Your task to perform on an android device: check out phone information Image 0: 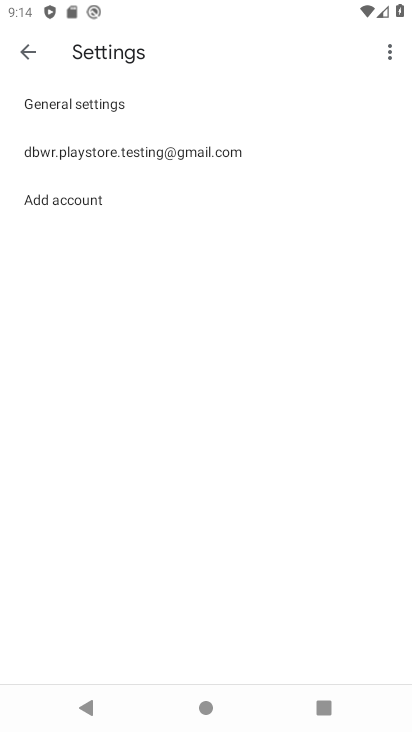
Step 0: press home button
Your task to perform on an android device: check out phone information Image 1: 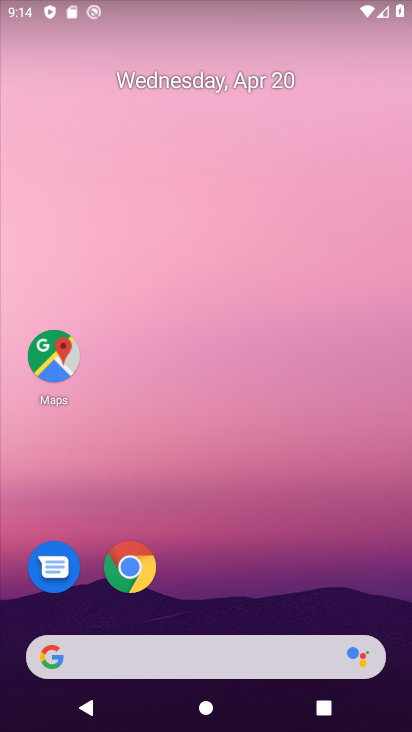
Step 1: drag from (280, 615) to (290, 229)
Your task to perform on an android device: check out phone information Image 2: 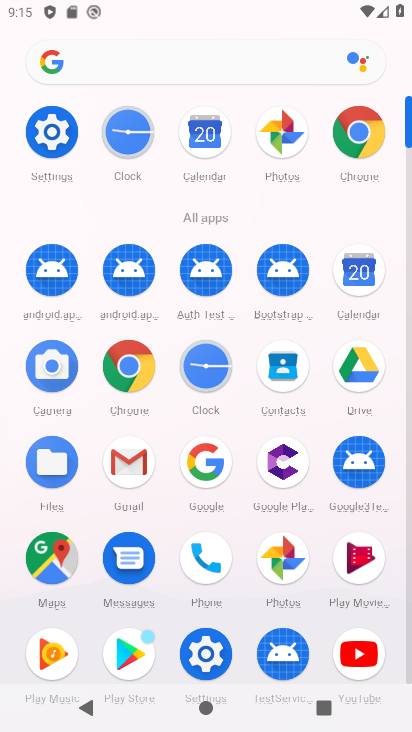
Step 2: click (208, 650)
Your task to perform on an android device: check out phone information Image 3: 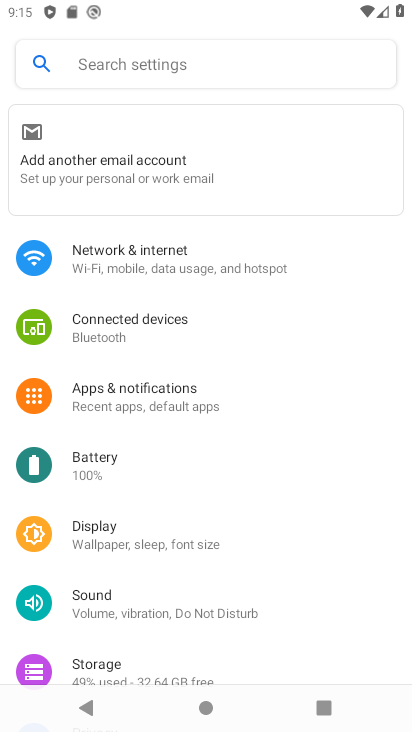
Step 3: drag from (231, 592) to (307, 57)
Your task to perform on an android device: check out phone information Image 4: 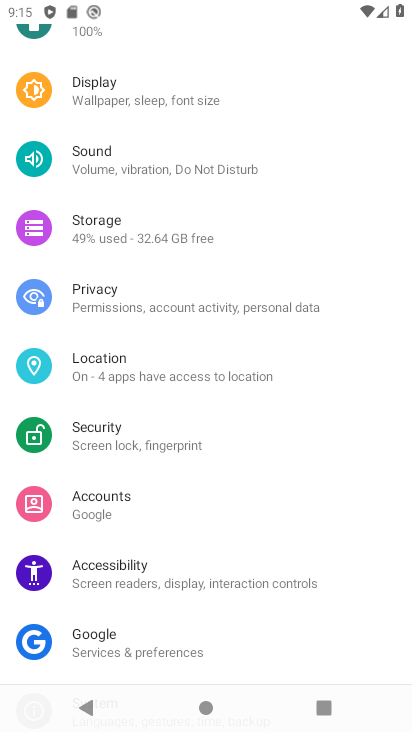
Step 4: drag from (137, 627) to (257, 100)
Your task to perform on an android device: check out phone information Image 5: 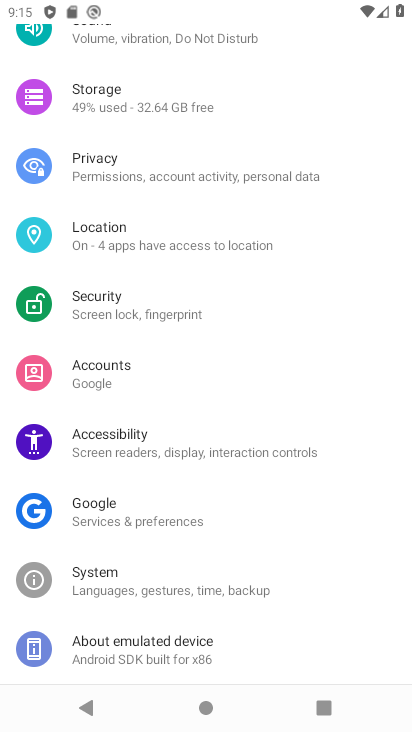
Step 5: drag from (218, 609) to (242, 485)
Your task to perform on an android device: check out phone information Image 6: 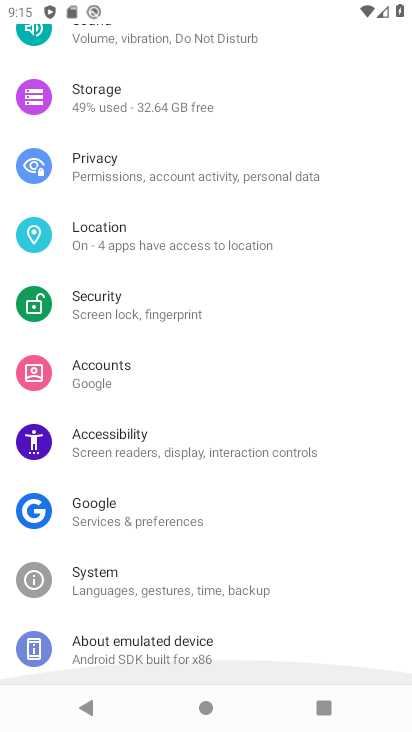
Step 6: click (196, 648)
Your task to perform on an android device: check out phone information Image 7: 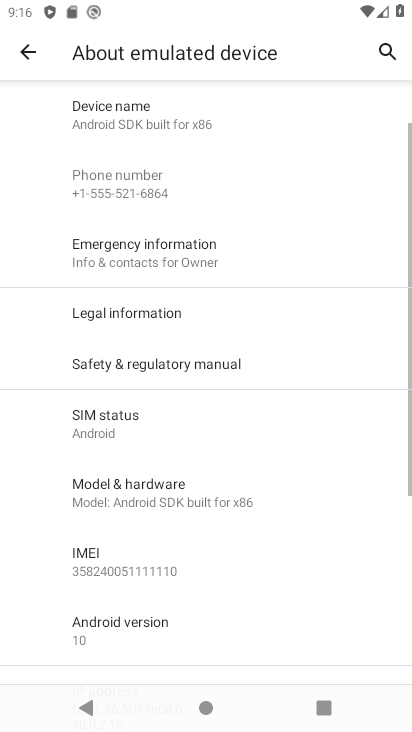
Step 7: task complete